Your task to perform on an android device: change the clock display to analog Image 0: 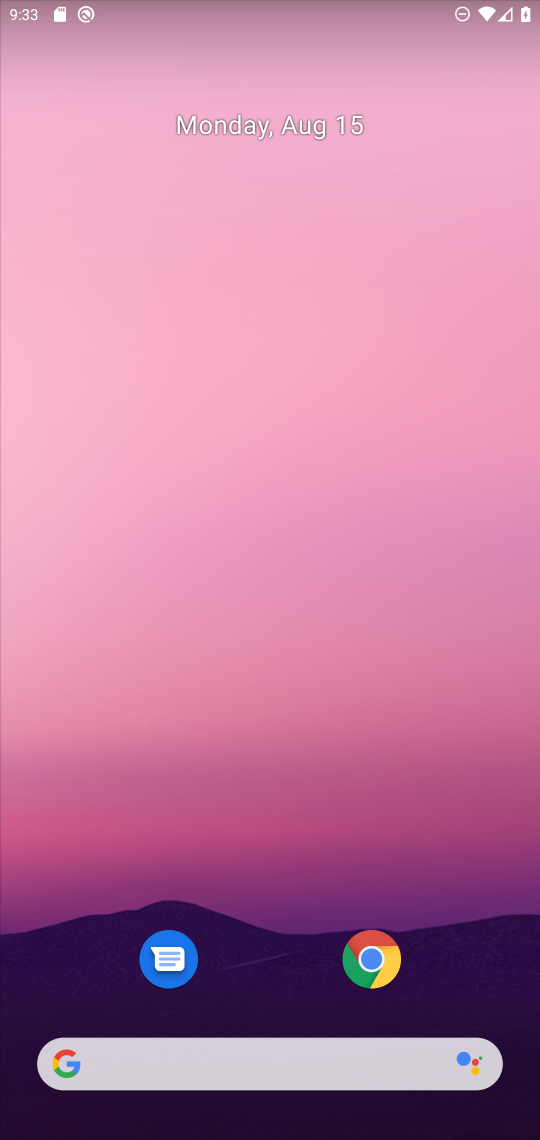
Step 0: drag from (261, 1014) to (370, 9)
Your task to perform on an android device: change the clock display to analog Image 1: 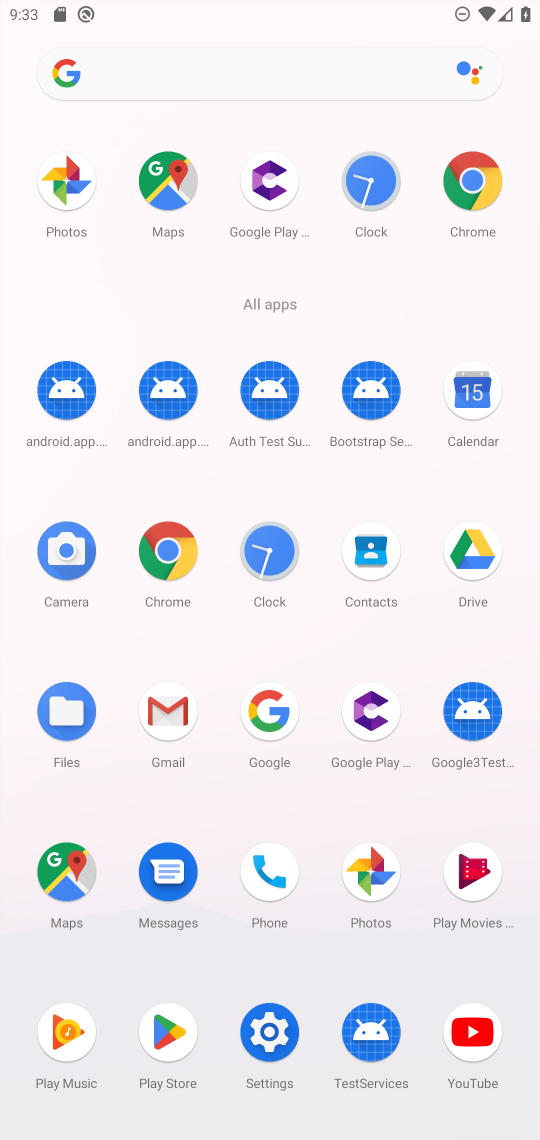
Step 1: drag from (299, 1012) to (234, 646)
Your task to perform on an android device: change the clock display to analog Image 2: 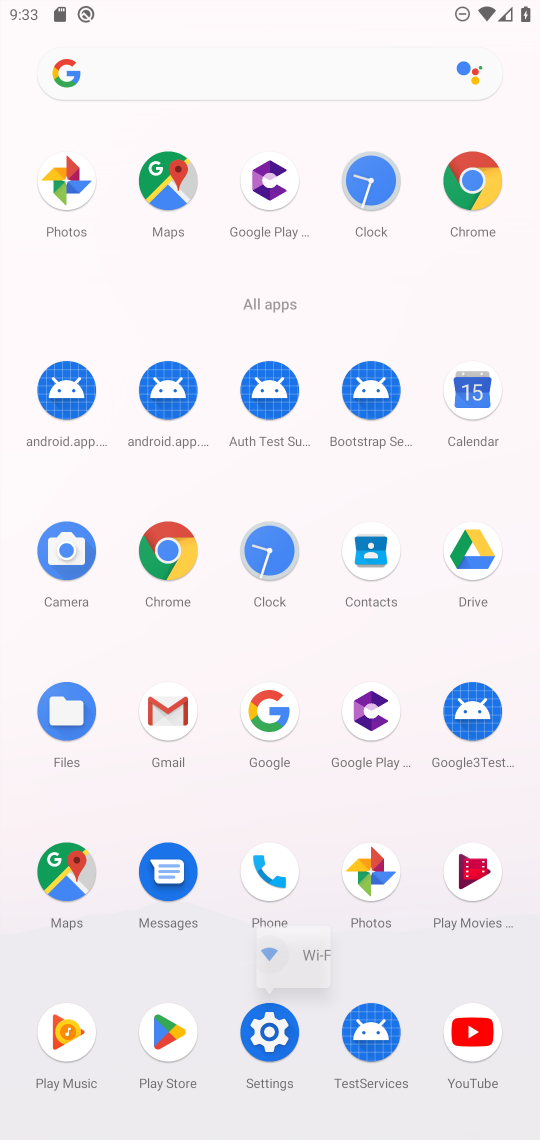
Step 2: click (267, 542)
Your task to perform on an android device: change the clock display to analog Image 3: 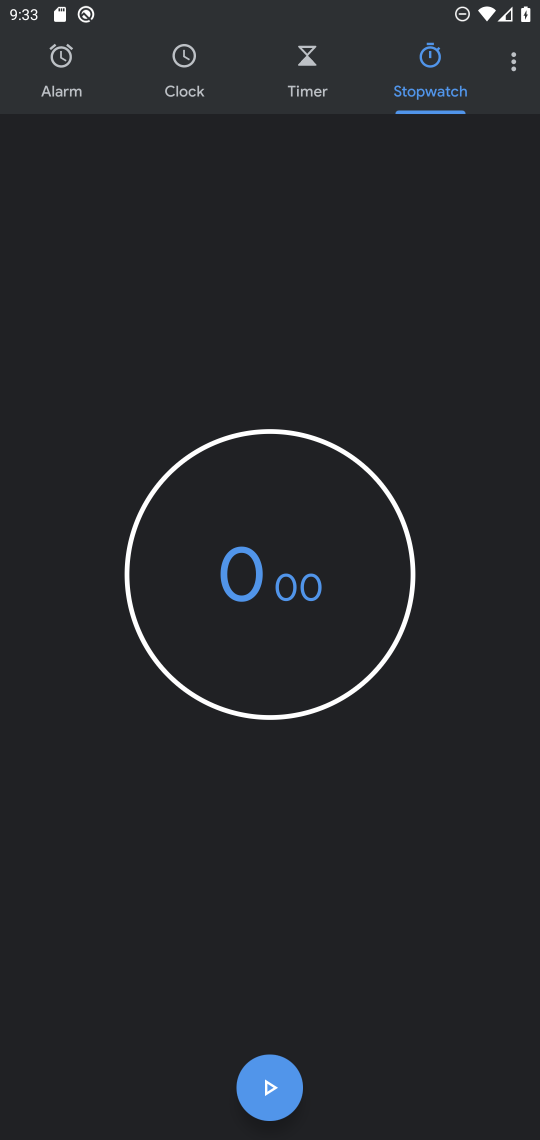
Step 3: click (513, 55)
Your task to perform on an android device: change the clock display to analog Image 4: 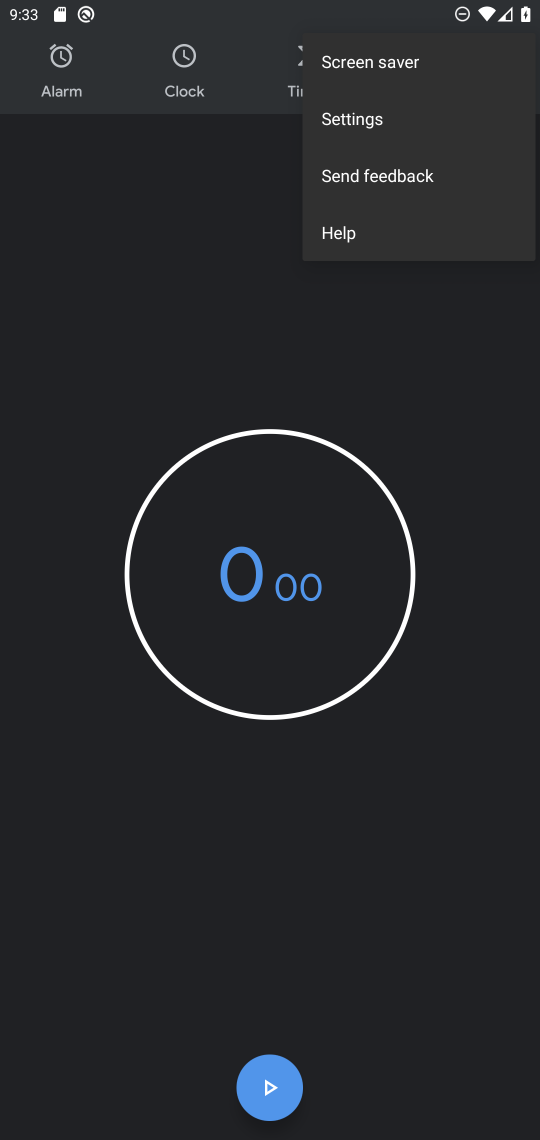
Step 4: click (356, 117)
Your task to perform on an android device: change the clock display to analog Image 5: 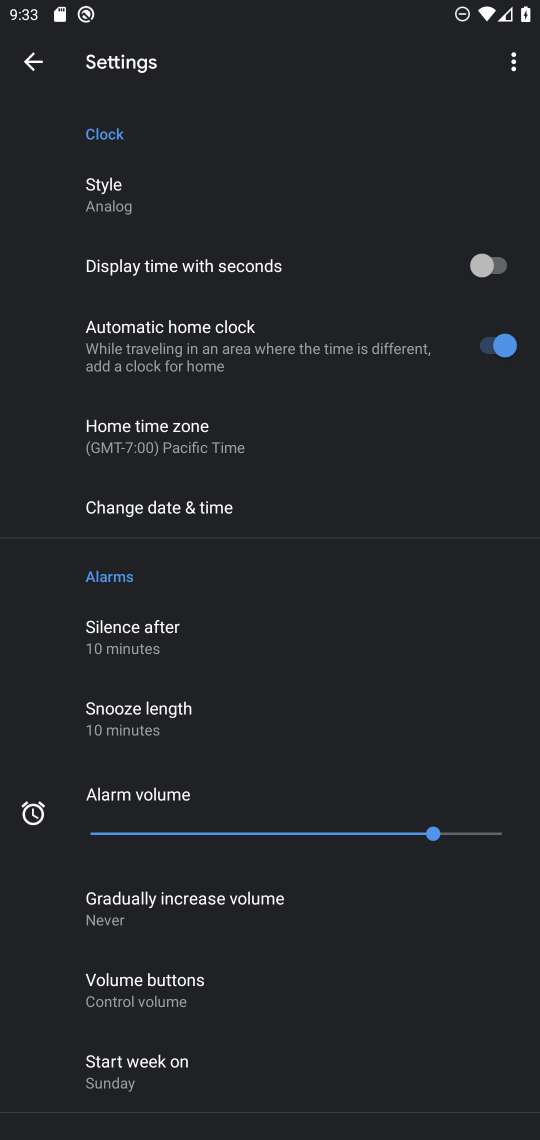
Step 5: click (171, 191)
Your task to perform on an android device: change the clock display to analog Image 6: 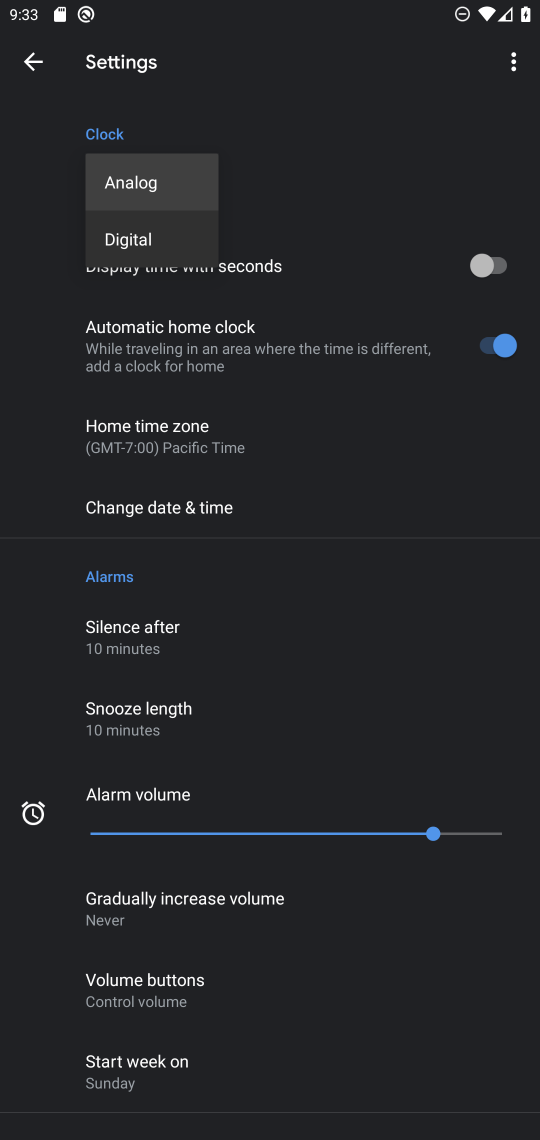
Step 6: click (164, 175)
Your task to perform on an android device: change the clock display to analog Image 7: 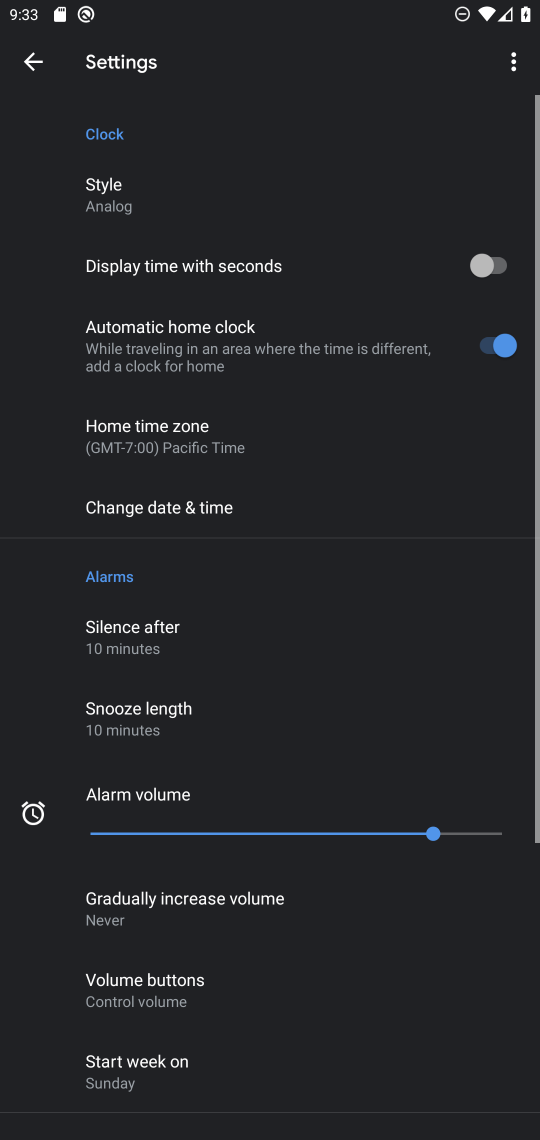
Step 7: task complete